Your task to perform on an android device: toggle improve location accuracy Image 0: 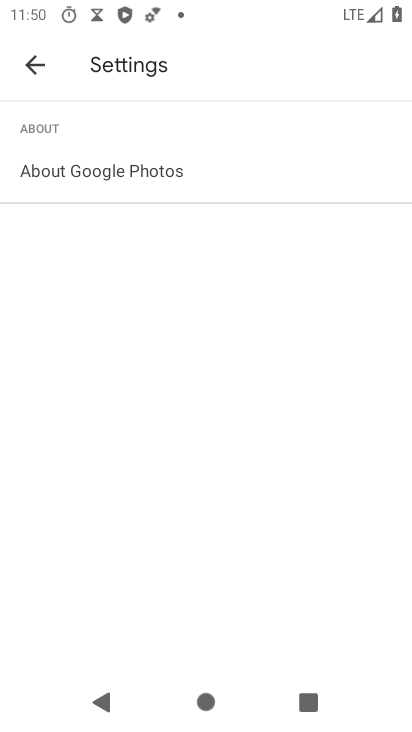
Step 0: press home button
Your task to perform on an android device: toggle improve location accuracy Image 1: 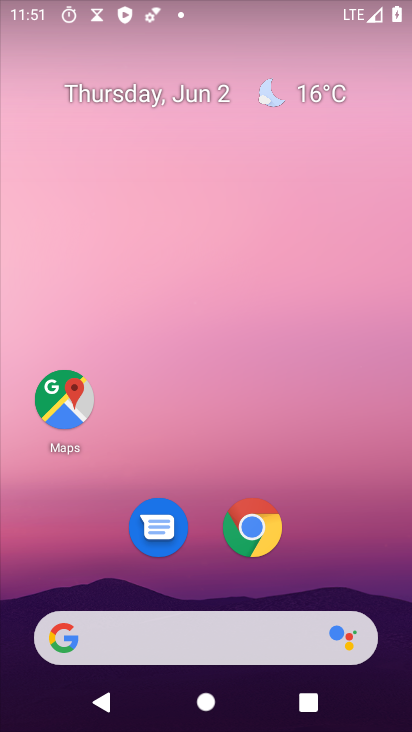
Step 1: drag from (185, 649) to (187, 83)
Your task to perform on an android device: toggle improve location accuracy Image 2: 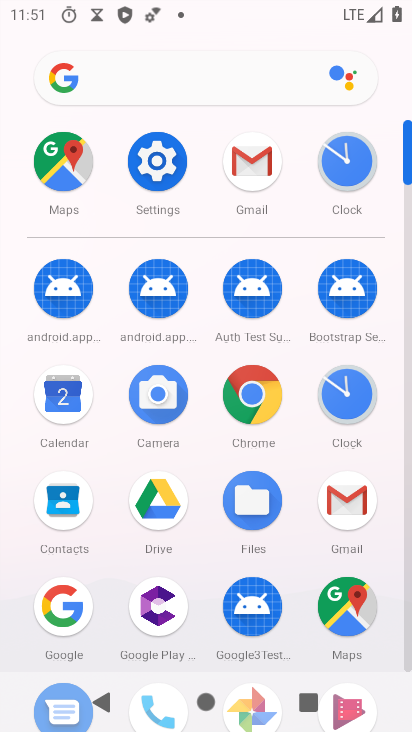
Step 2: click (151, 176)
Your task to perform on an android device: toggle improve location accuracy Image 3: 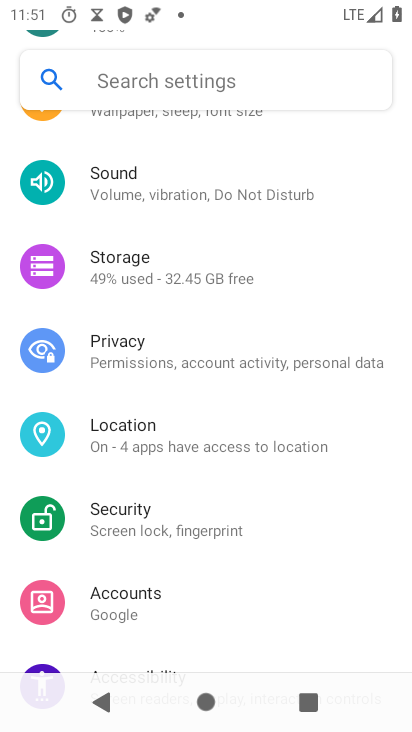
Step 3: click (105, 420)
Your task to perform on an android device: toggle improve location accuracy Image 4: 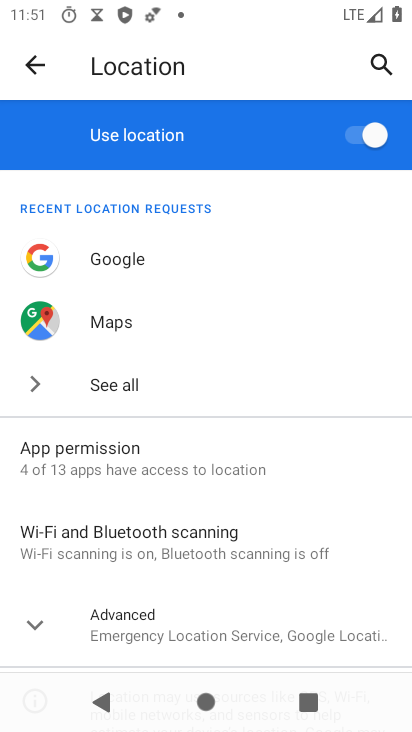
Step 4: click (160, 613)
Your task to perform on an android device: toggle improve location accuracy Image 5: 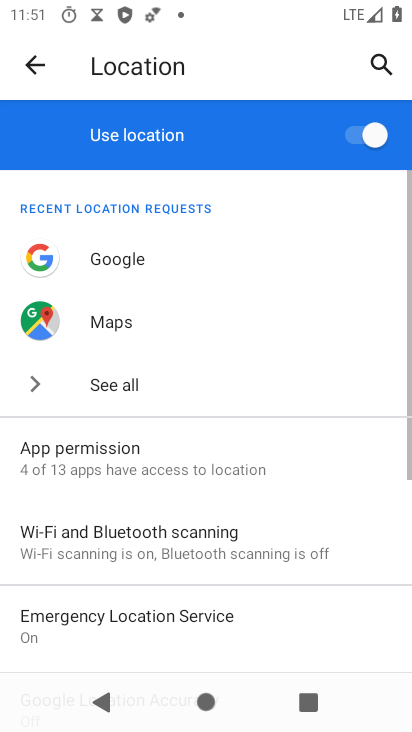
Step 5: drag from (189, 607) to (149, 177)
Your task to perform on an android device: toggle improve location accuracy Image 6: 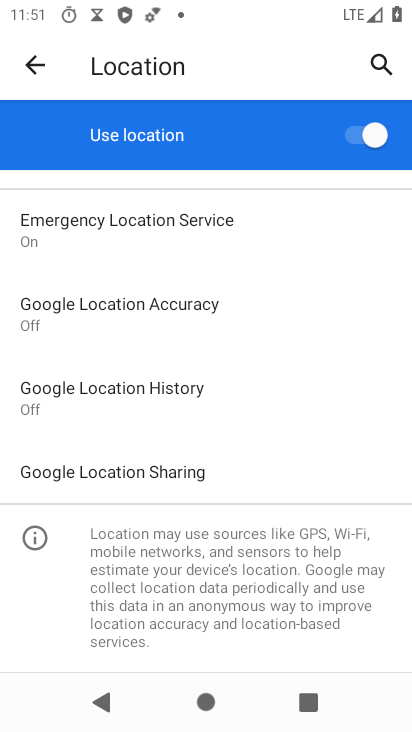
Step 6: click (152, 313)
Your task to perform on an android device: toggle improve location accuracy Image 7: 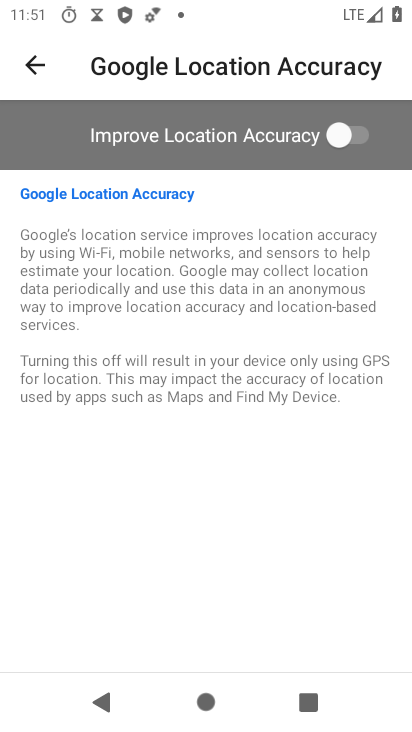
Step 7: click (328, 143)
Your task to perform on an android device: toggle improve location accuracy Image 8: 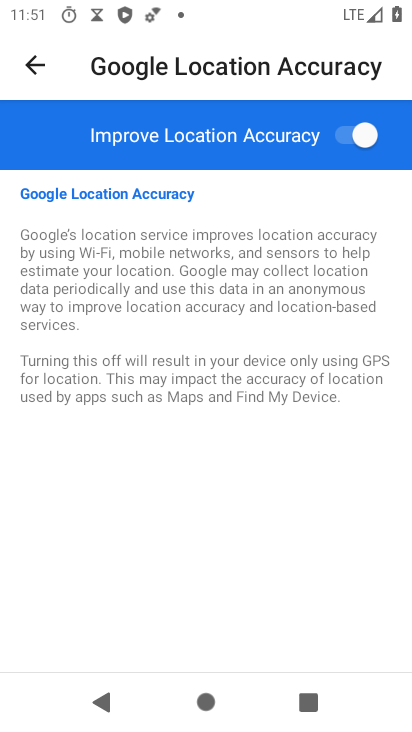
Step 8: task complete